Your task to perform on an android device: Open maps Image 0: 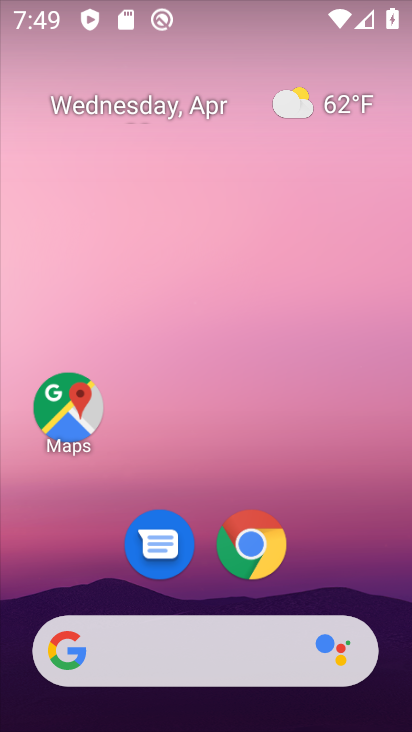
Step 0: click (59, 410)
Your task to perform on an android device: Open maps Image 1: 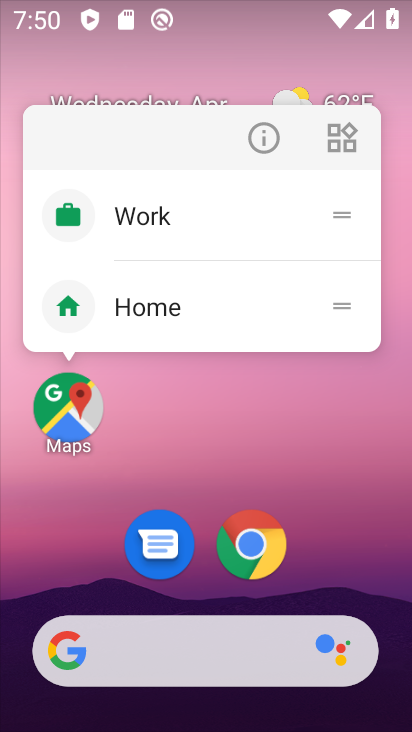
Step 1: click (59, 410)
Your task to perform on an android device: Open maps Image 2: 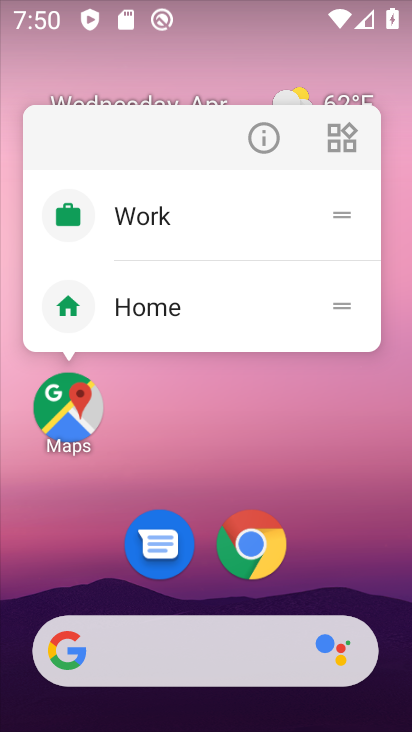
Step 2: click (59, 410)
Your task to perform on an android device: Open maps Image 3: 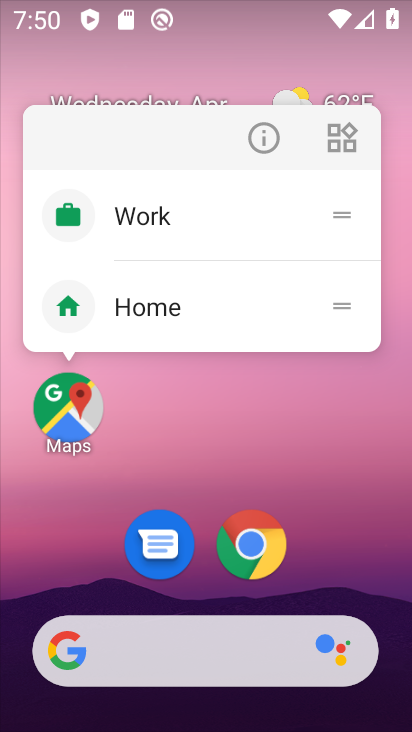
Step 3: click (59, 410)
Your task to perform on an android device: Open maps Image 4: 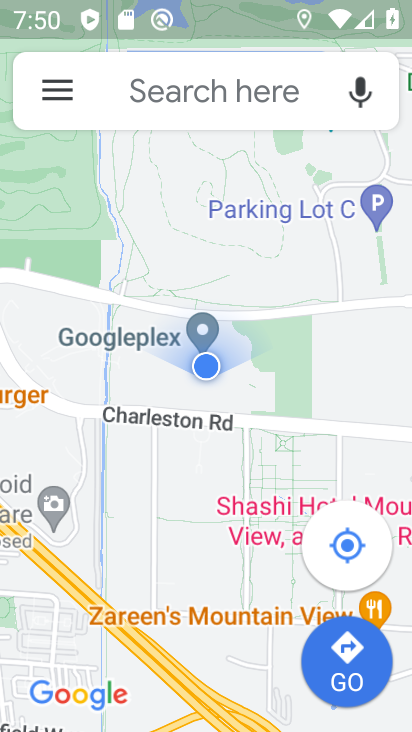
Step 4: task complete